Your task to perform on an android device: turn on showing notifications on the lock screen Image 0: 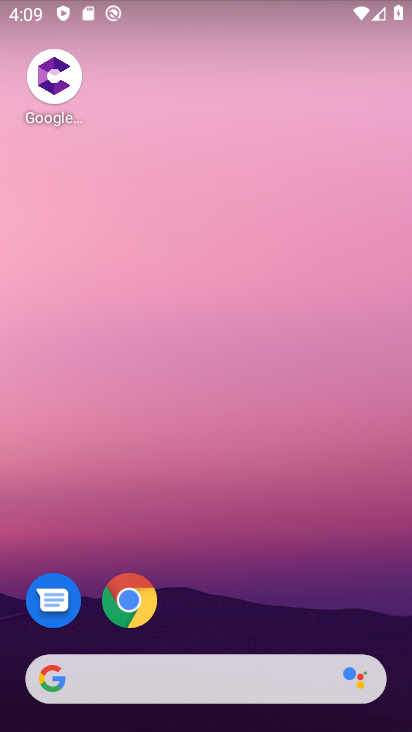
Step 0: drag from (311, 603) to (290, 106)
Your task to perform on an android device: turn on showing notifications on the lock screen Image 1: 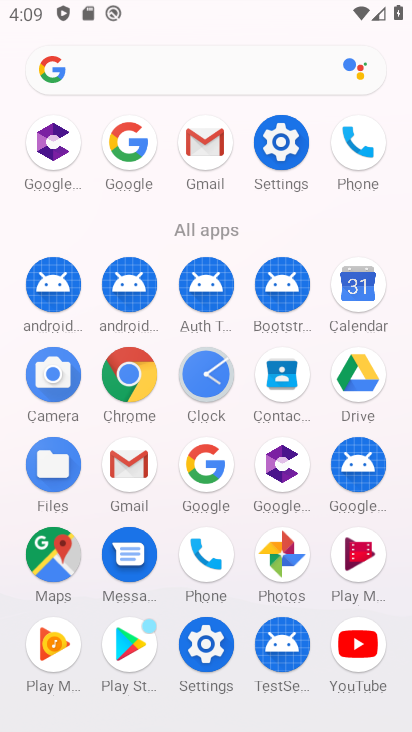
Step 1: click (277, 143)
Your task to perform on an android device: turn on showing notifications on the lock screen Image 2: 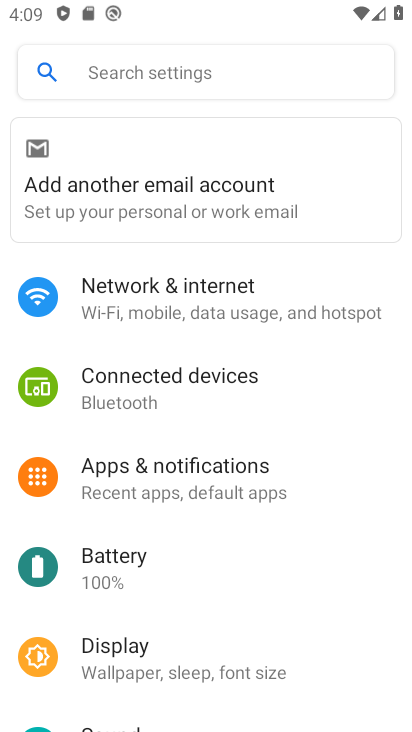
Step 2: click (175, 475)
Your task to perform on an android device: turn on showing notifications on the lock screen Image 3: 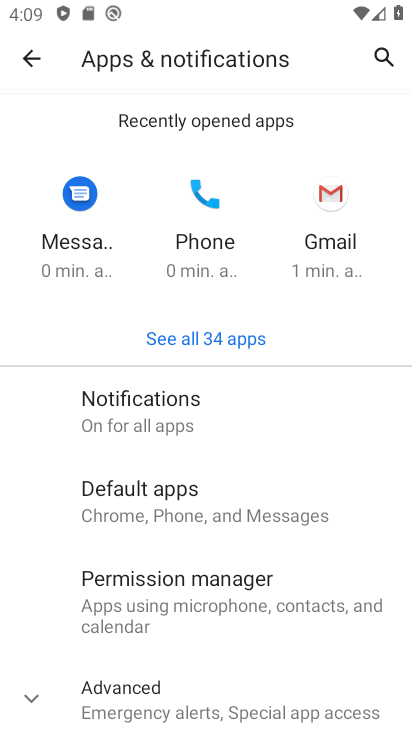
Step 3: click (167, 415)
Your task to perform on an android device: turn on showing notifications on the lock screen Image 4: 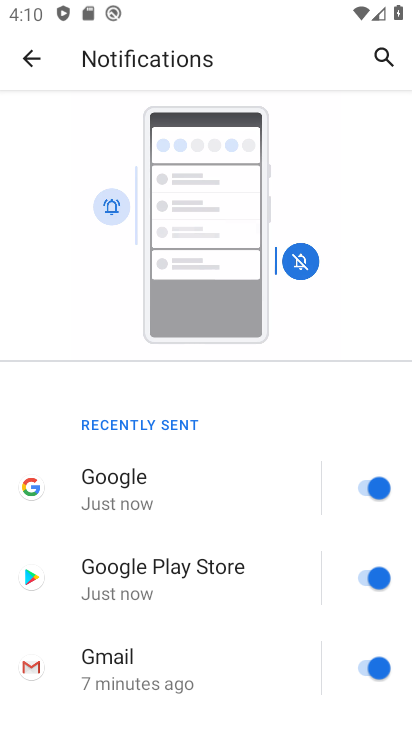
Step 4: drag from (176, 620) to (230, 451)
Your task to perform on an android device: turn on showing notifications on the lock screen Image 5: 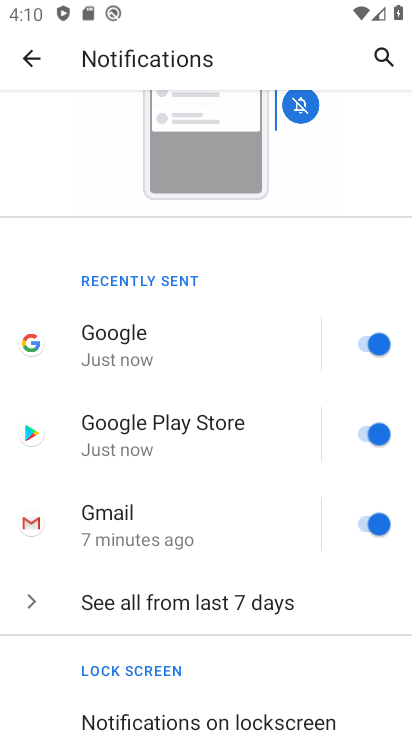
Step 5: drag from (206, 665) to (217, 521)
Your task to perform on an android device: turn on showing notifications on the lock screen Image 6: 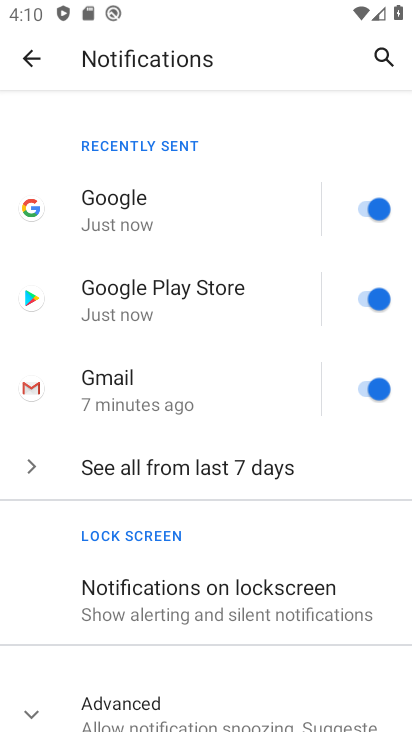
Step 6: click (201, 612)
Your task to perform on an android device: turn on showing notifications on the lock screen Image 7: 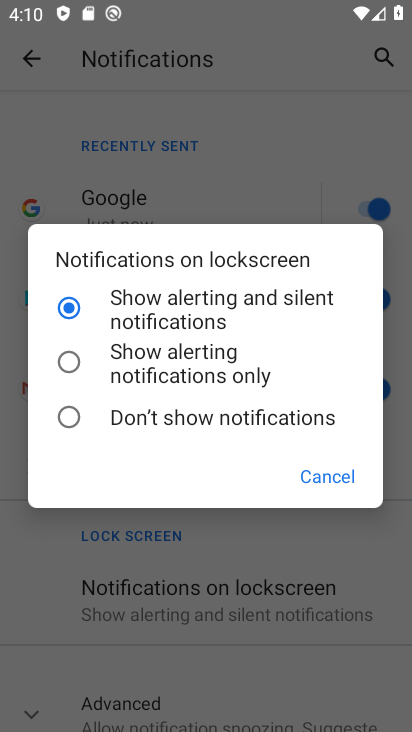
Step 7: click (65, 311)
Your task to perform on an android device: turn on showing notifications on the lock screen Image 8: 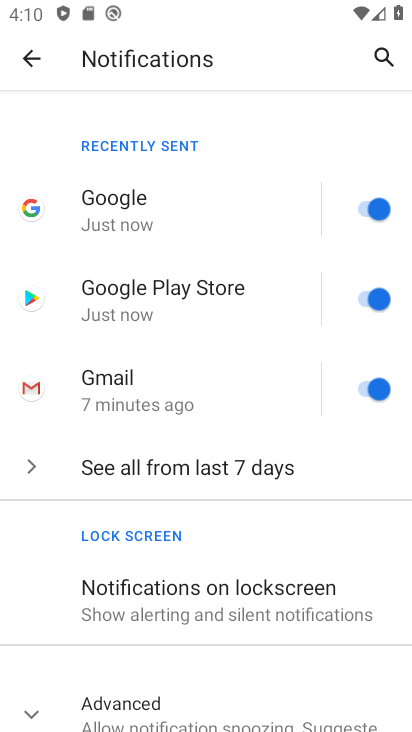
Step 8: task complete